Your task to perform on an android device: refresh tabs in the chrome app Image 0: 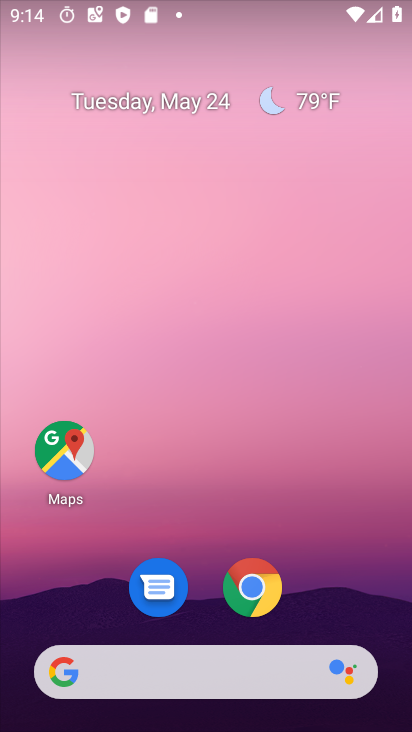
Step 0: click (254, 590)
Your task to perform on an android device: refresh tabs in the chrome app Image 1: 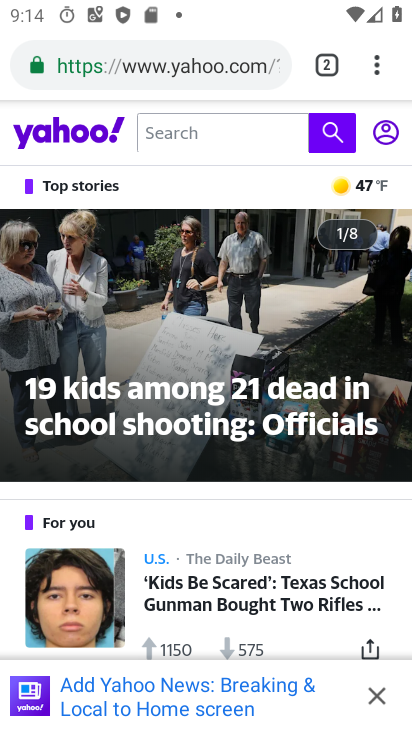
Step 1: click (379, 67)
Your task to perform on an android device: refresh tabs in the chrome app Image 2: 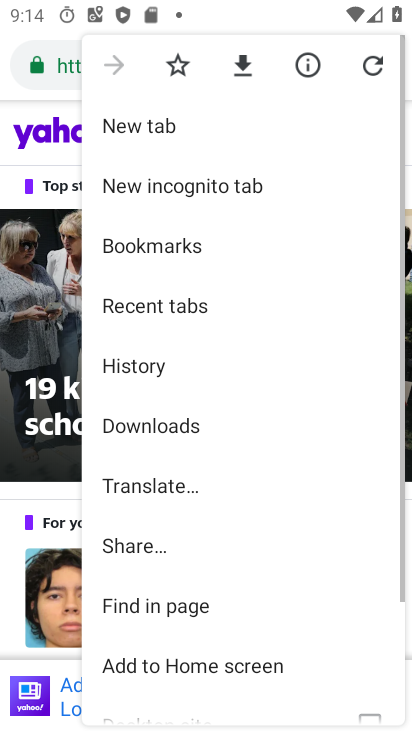
Step 2: click (379, 67)
Your task to perform on an android device: refresh tabs in the chrome app Image 3: 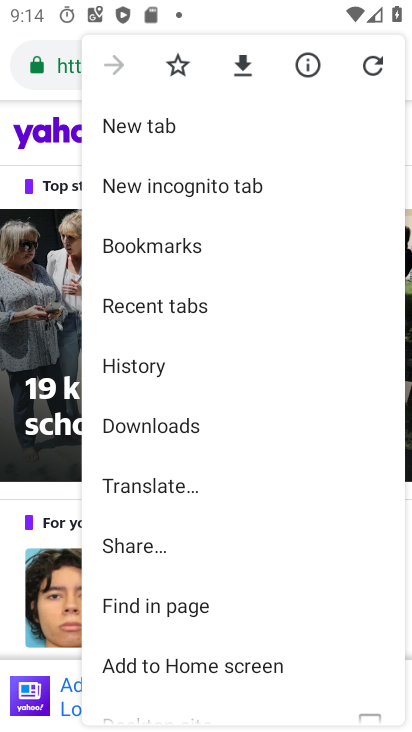
Step 3: click (379, 67)
Your task to perform on an android device: refresh tabs in the chrome app Image 4: 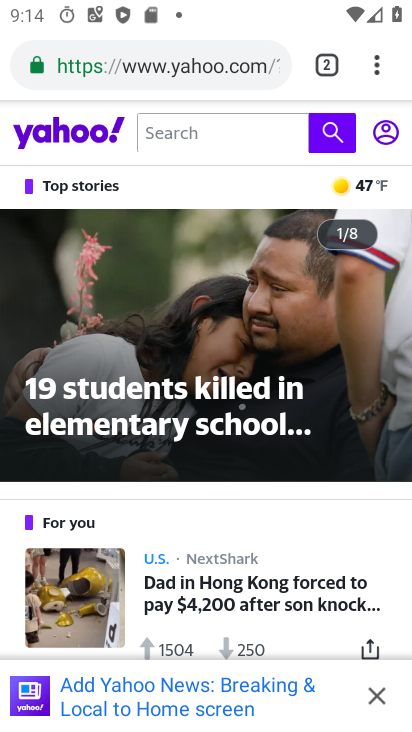
Step 4: task complete